Your task to perform on an android device: What's on my calendar today? Image 0: 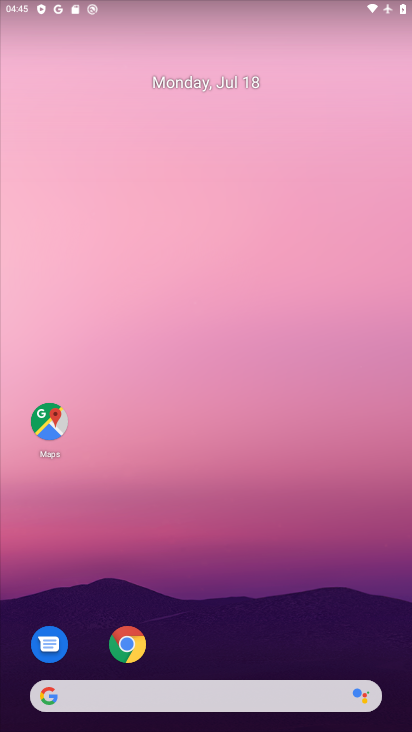
Step 0: drag from (261, 650) to (301, 45)
Your task to perform on an android device: What's on my calendar today? Image 1: 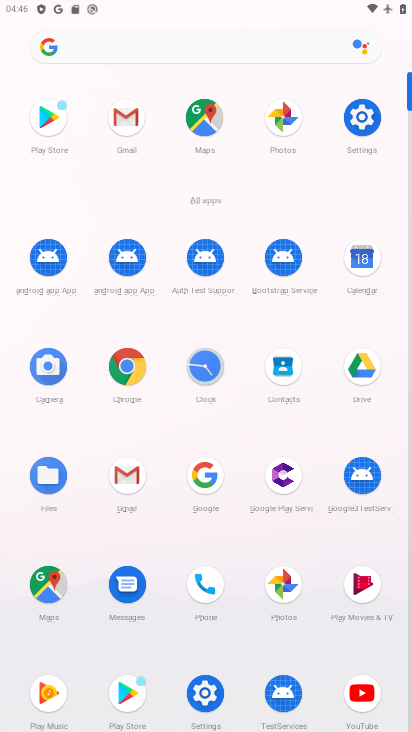
Step 1: click (360, 253)
Your task to perform on an android device: What's on my calendar today? Image 2: 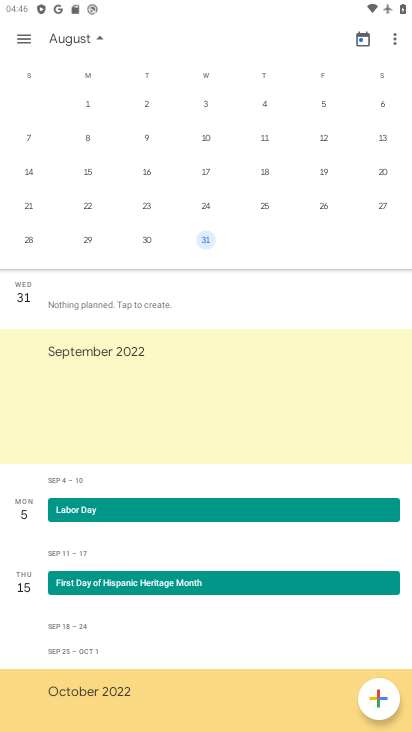
Step 2: drag from (57, 169) to (391, 154)
Your task to perform on an android device: What's on my calendar today? Image 3: 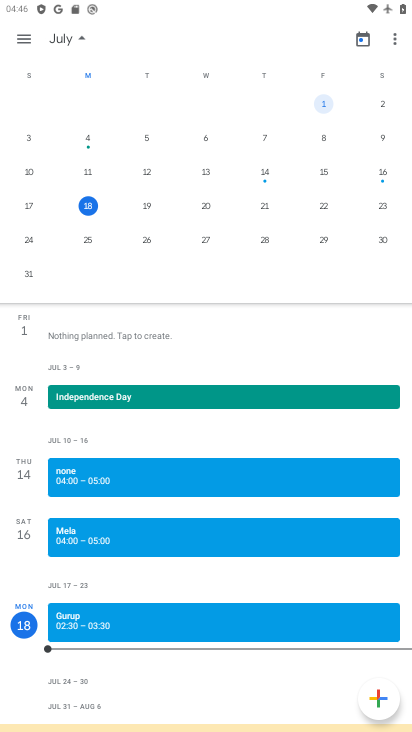
Step 3: click (85, 205)
Your task to perform on an android device: What's on my calendar today? Image 4: 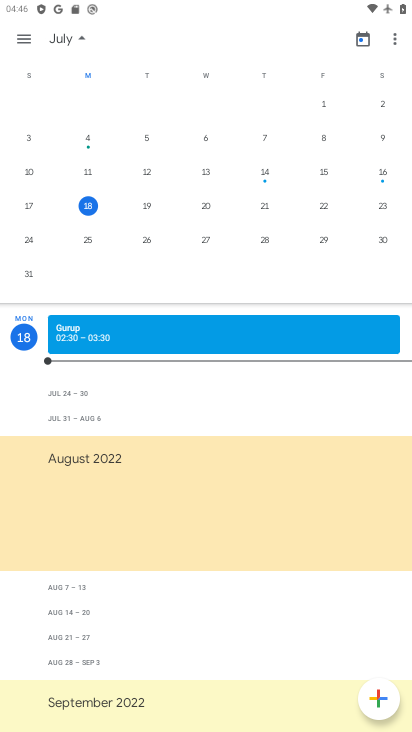
Step 4: task complete